Your task to perform on an android device: turn pop-ups off in chrome Image 0: 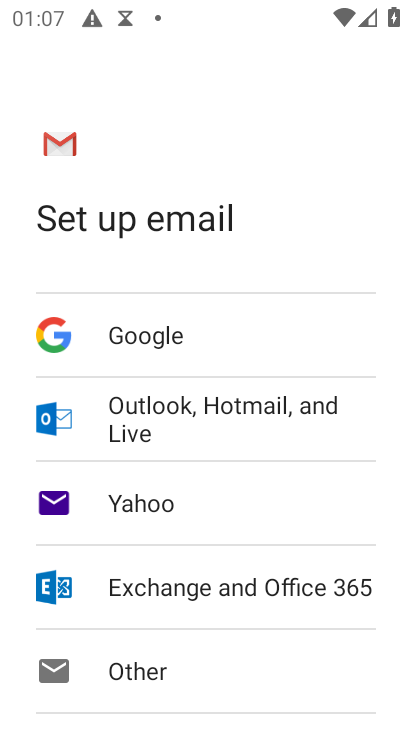
Step 0: press home button
Your task to perform on an android device: turn pop-ups off in chrome Image 1: 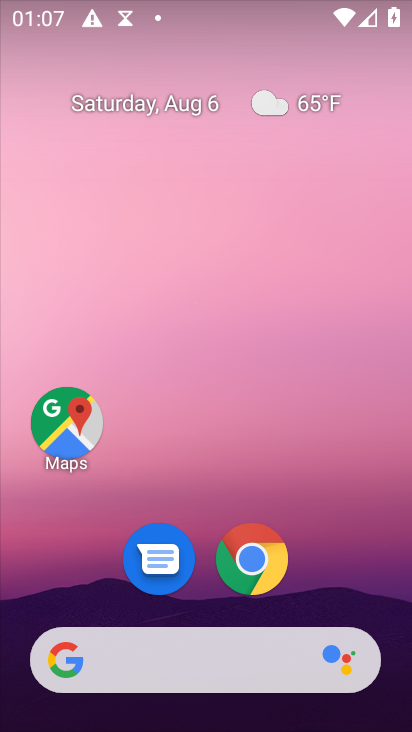
Step 1: click (254, 567)
Your task to perform on an android device: turn pop-ups off in chrome Image 2: 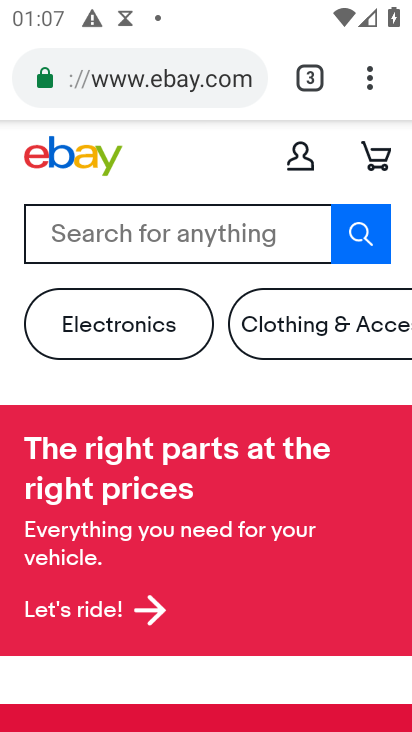
Step 2: click (377, 78)
Your task to perform on an android device: turn pop-ups off in chrome Image 3: 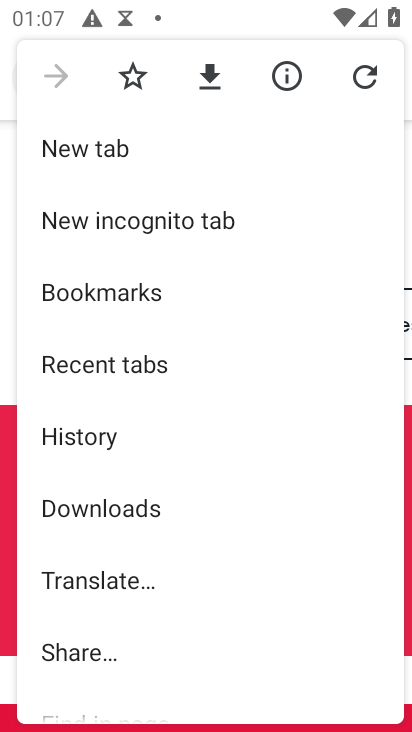
Step 3: drag from (258, 639) to (177, 272)
Your task to perform on an android device: turn pop-ups off in chrome Image 4: 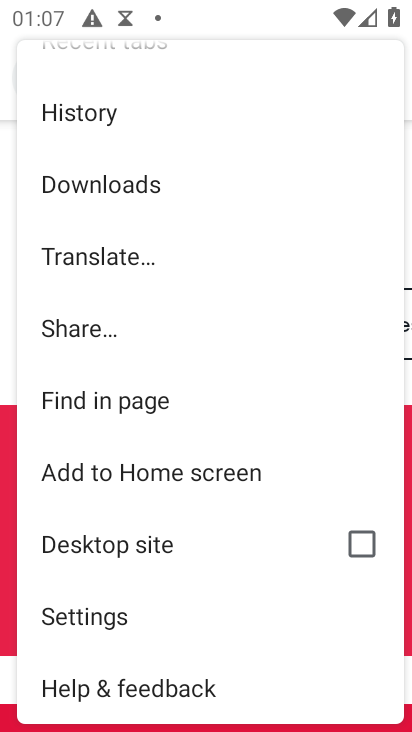
Step 4: click (187, 619)
Your task to perform on an android device: turn pop-ups off in chrome Image 5: 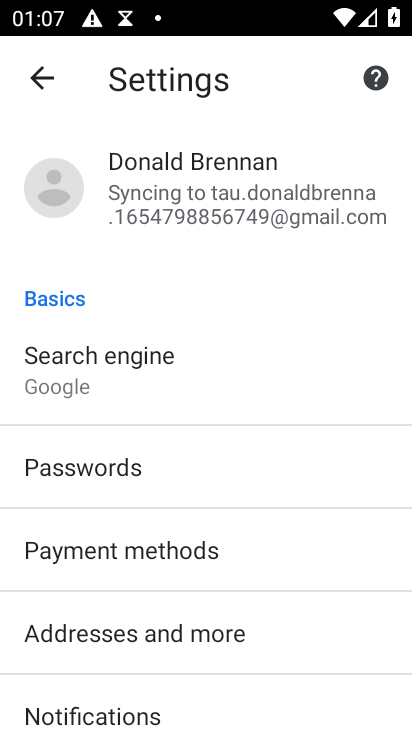
Step 5: drag from (261, 685) to (112, 228)
Your task to perform on an android device: turn pop-ups off in chrome Image 6: 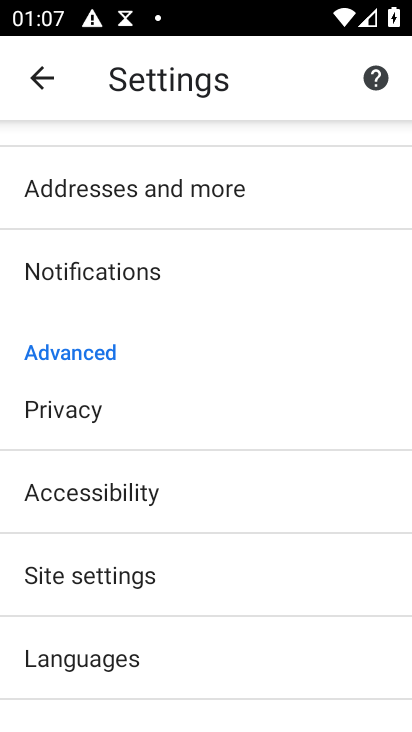
Step 6: click (175, 580)
Your task to perform on an android device: turn pop-ups off in chrome Image 7: 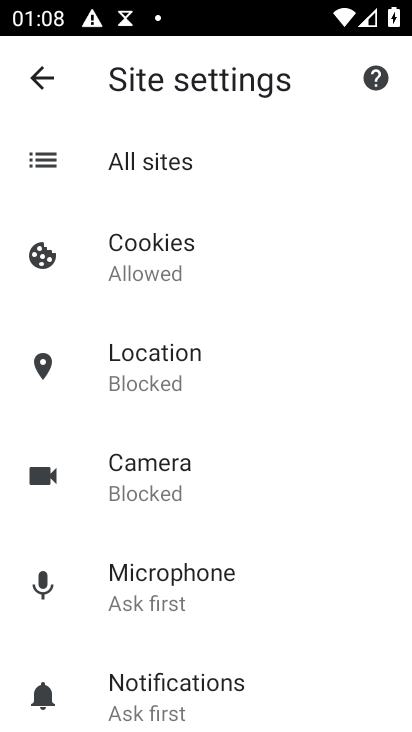
Step 7: drag from (234, 642) to (130, 282)
Your task to perform on an android device: turn pop-ups off in chrome Image 8: 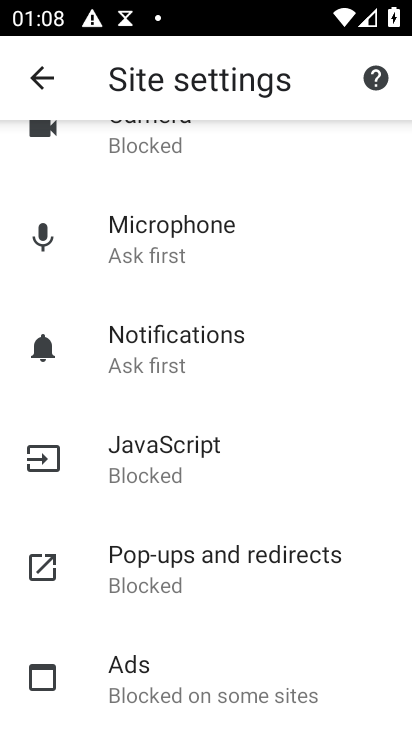
Step 8: click (231, 583)
Your task to perform on an android device: turn pop-ups off in chrome Image 9: 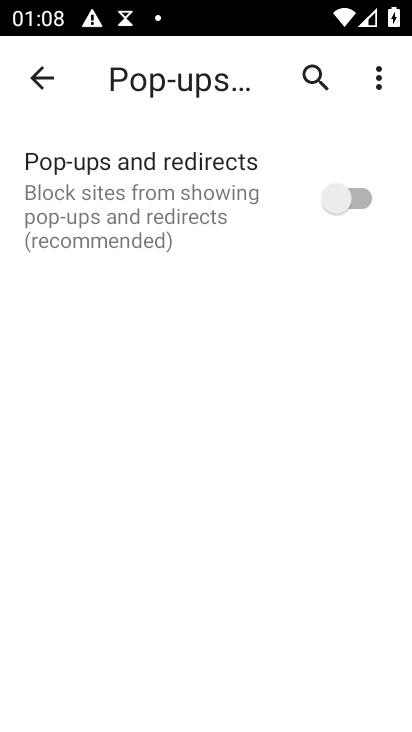
Step 9: task complete